Your task to perform on an android device: turn on airplane mode Image 0: 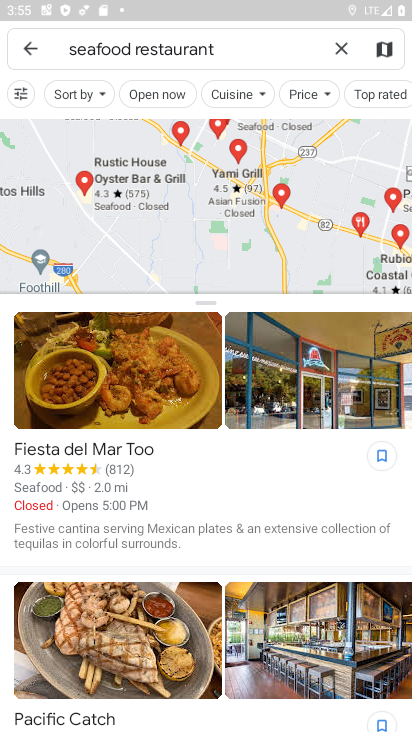
Step 0: press home button
Your task to perform on an android device: turn on airplane mode Image 1: 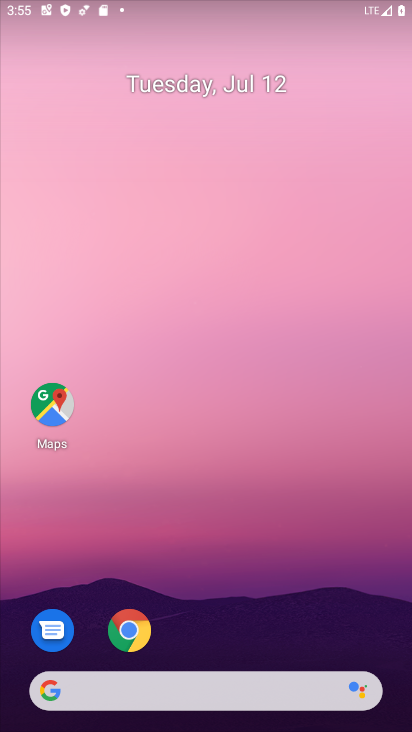
Step 1: drag from (210, 5) to (177, 599)
Your task to perform on an android device: turn on airplane mode Image 2: 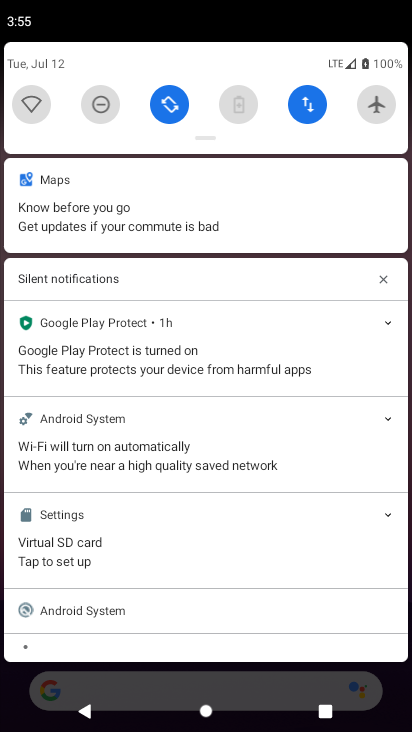
Step 2: drag from (211, 125) to (220, 565)
Your task to perform on an android device: turn on airplane mode Image 3: 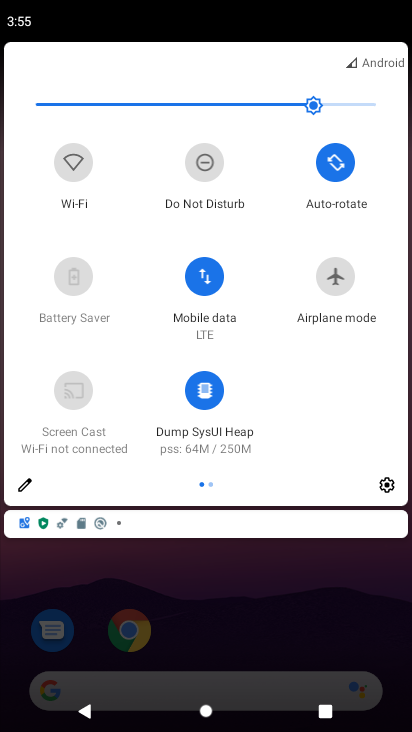
Step 3: click (339, 275)
Your task to perform on an android device: turn on airplane mode Image 4: 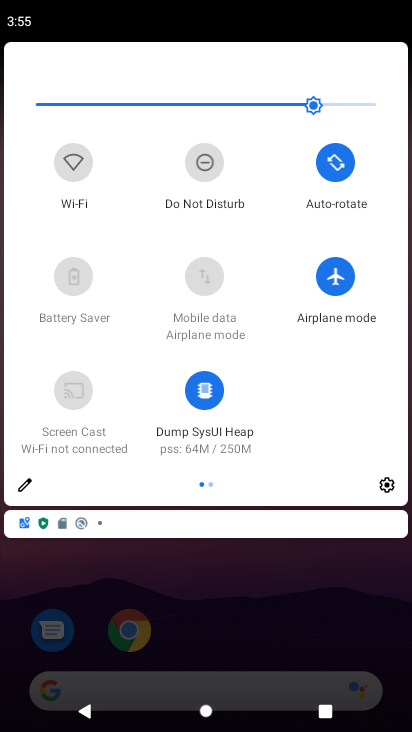
Step 4: task complete